Your task to perform on an android device: turn off location history Image 0: 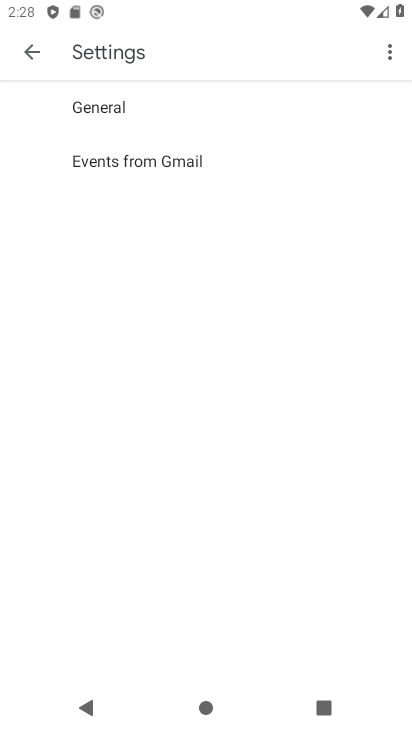
Step 0: press home button
Your task to perform on an android device: turn off location history Image 1: 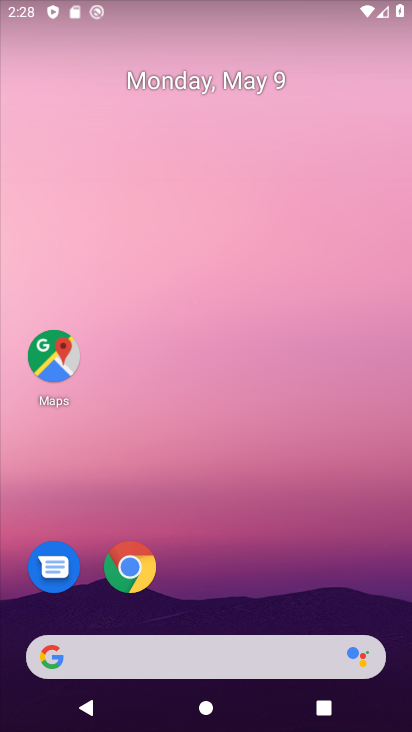
Step 1: drag from (213, 539) to (192, 263)
Your task to perform on an android device: turn off location history Image 2: 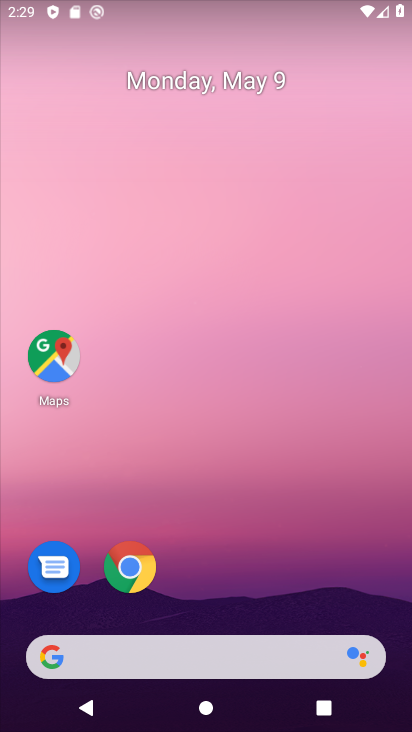
Step 2: drag from (221, 597) to (267, 172)
Your task to perform on an android device: turn off location history Image 3: 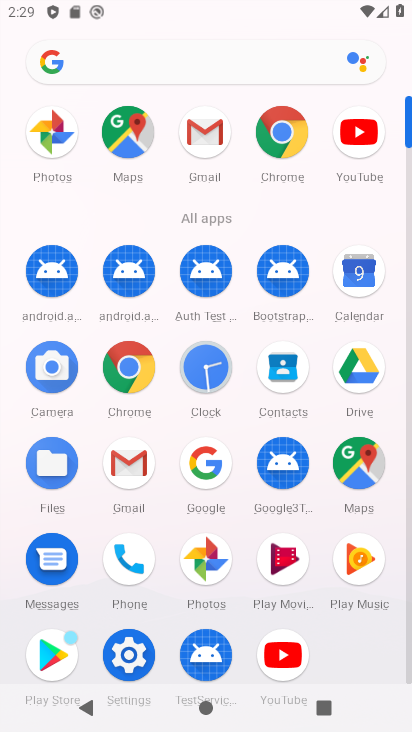
Step 3: click (144, 657)
Your task to perform on an android device: turn off location history Image 4: 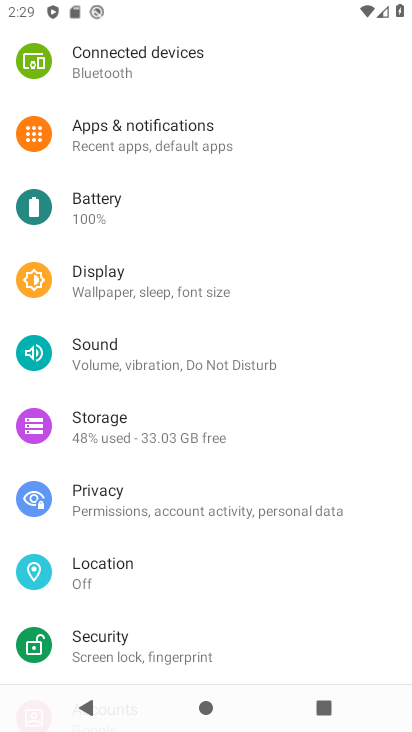
Step 4: click (144, 572)
Your task to perform on an android device: turn off location history Image 5: 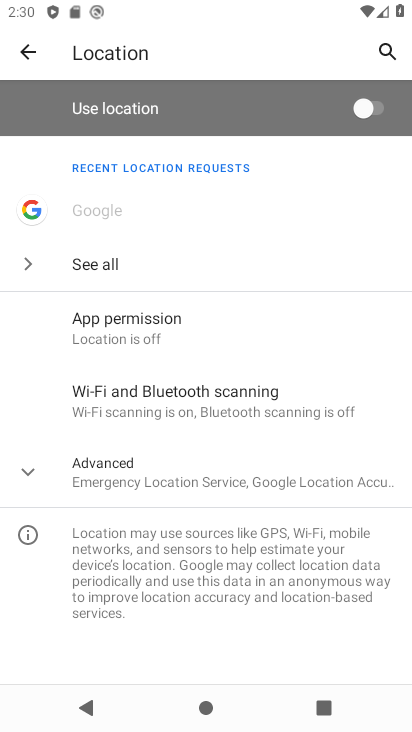
Step 5: task complete